Your task to perform on an android device: Open eBay Image 0: 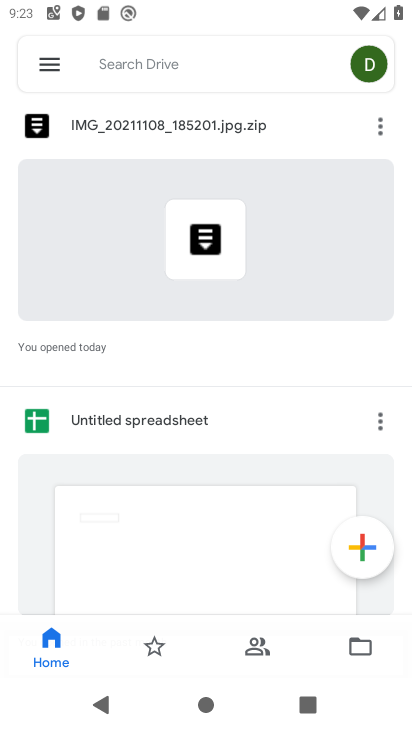
Step 0: press home button
Your task to perform on an android device: Open eBay Image 1: 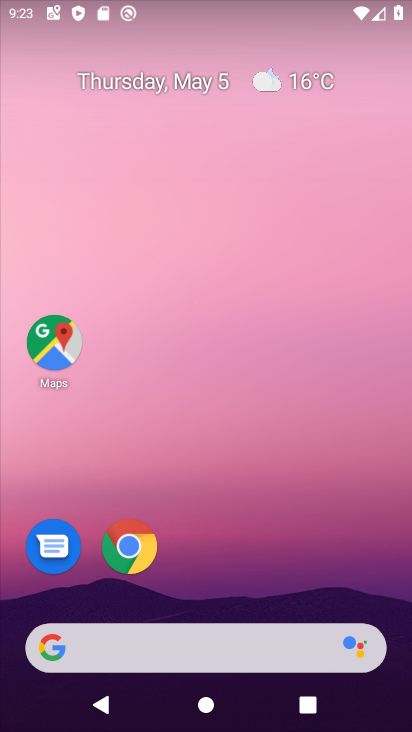
Step 1: drag from (168, 646) to (337, 17)
Your task to perform on an android device: Open eBay Image 2: 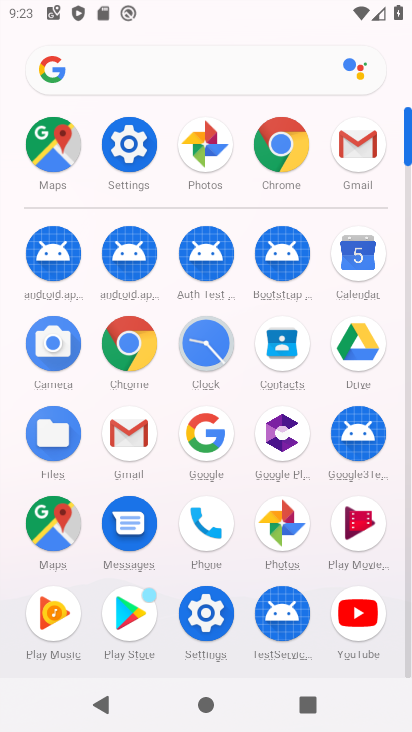
Step 2: click (281, 147)
Your task to perform on an android device: Open eBay Image 3: 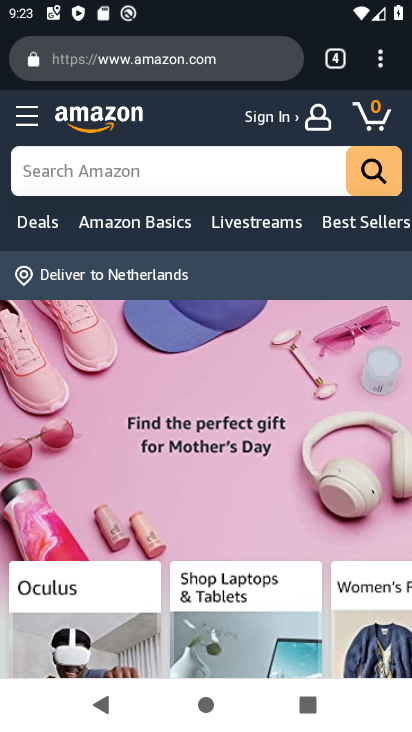
Step 3: drag from (380, 61) to (198, 119)
Your task to perform on an android device: Open eBay Image 4: 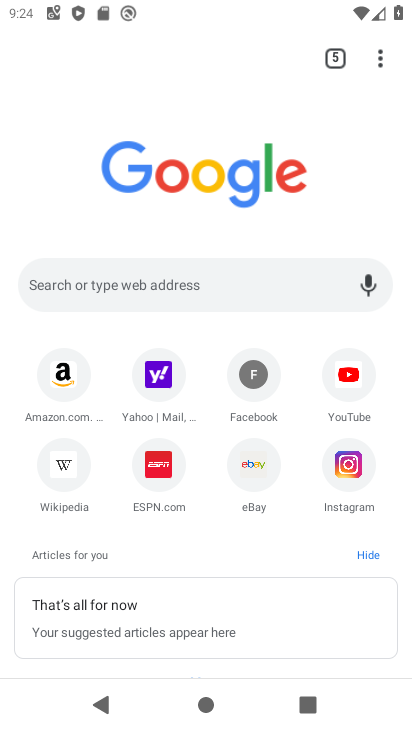
Step 4: click (260, 481)
Your task to perform on an android device: Open eBay Image 5: 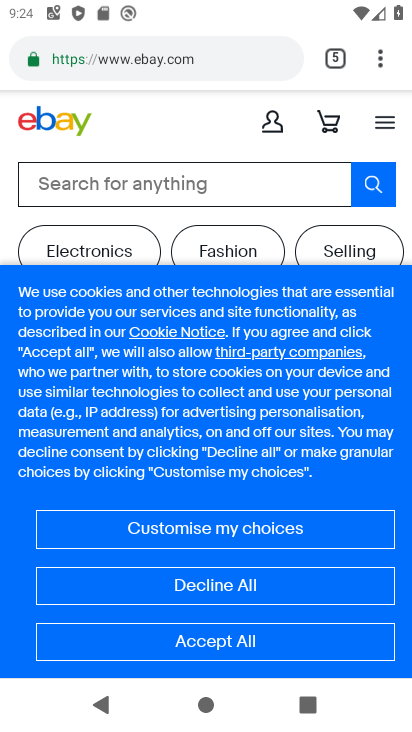
Step 5: task complete